Your task to perform on an android device: turn off priority inbox in the gmail app Image 0: 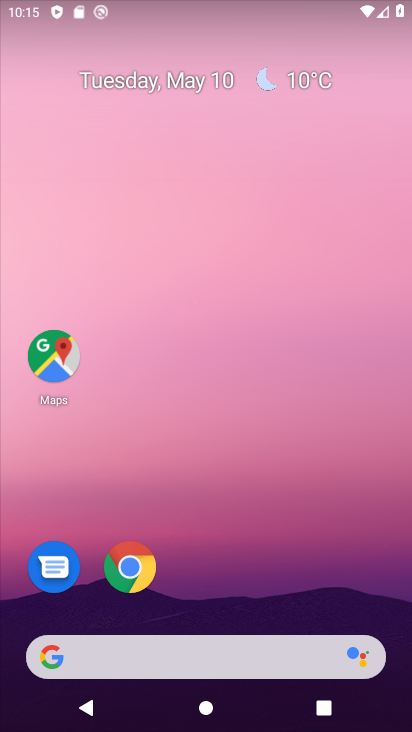
Step 0: drag from (329, 602) to (323, 2)
Your task to perform on an android device: turn off priority inbox in the gmail app Image 1: 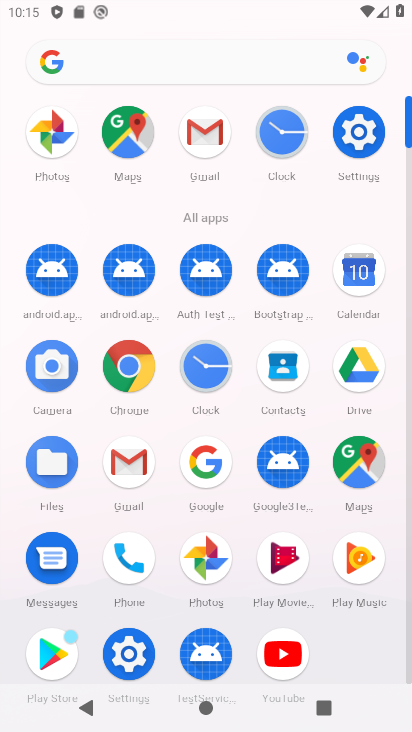
Step 1: click (194, 144)
Your task to perform on an android device: turn off priority inbox in the gmail app Image 2: 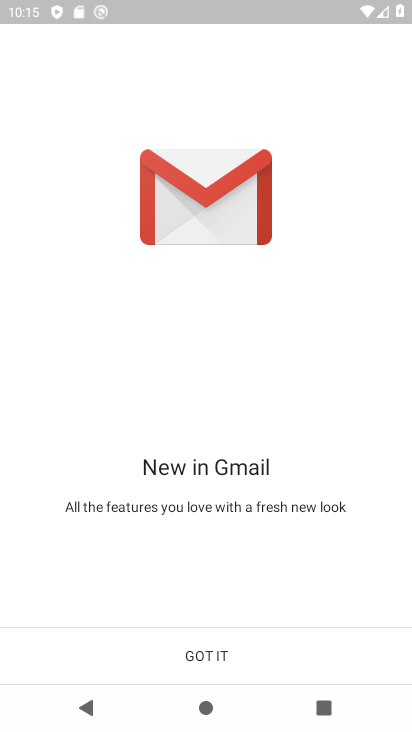
Step 2: click (185, 660)
Your task to perform on an android device: turn off priority inbox in the gmail app Image 3: 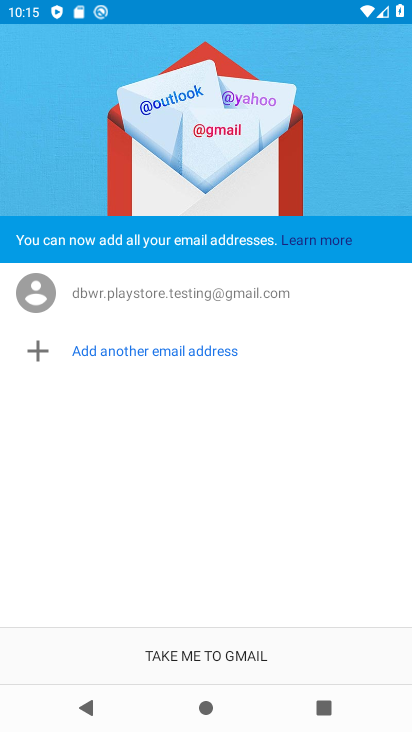
Step 3: click (187, 665)
Your task to perform on an android device: turn off priority inbox in the gmail app Image 4: 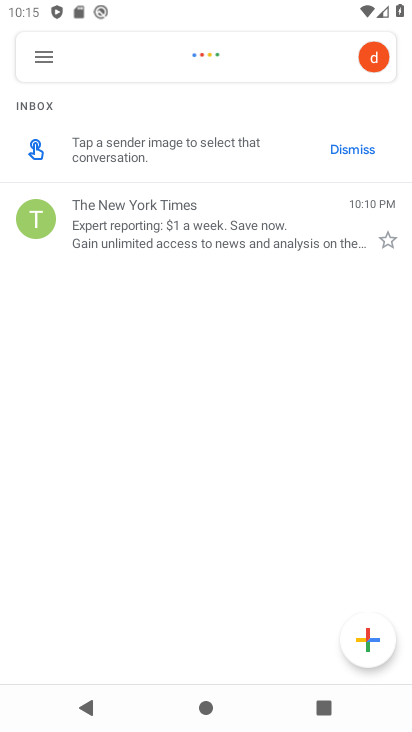
Step 4: click (40, 64)
Your task to perform on an android device: turn off priority inbox in the gmail app Image 5: 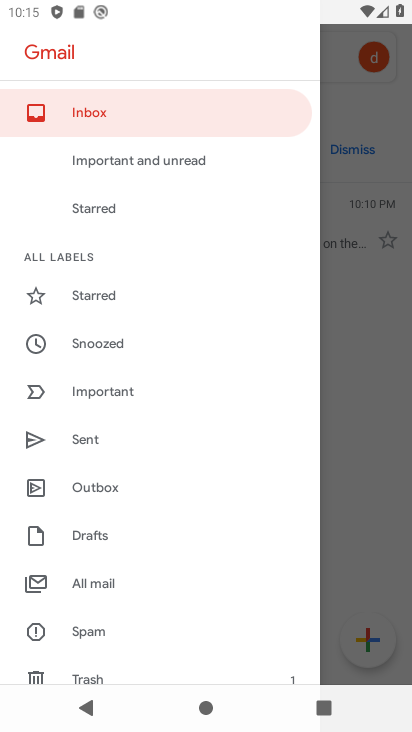
Step 5: drag from (118, 664) to (163, 370)
Your task to perform on an android device: turn off priority inbox in the gmail app Image 6: 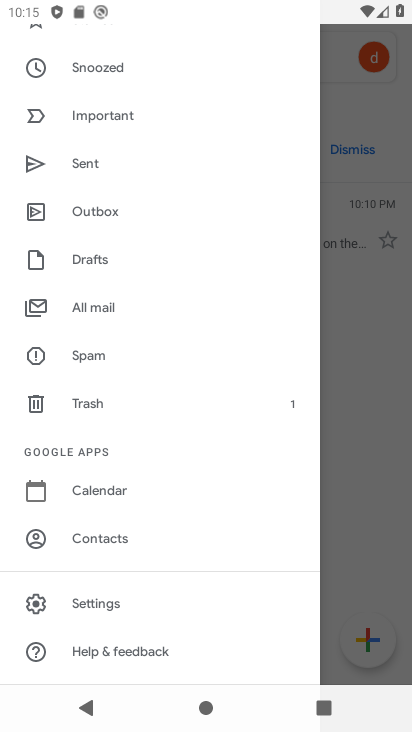
Step 6: click (106, 606)
Your task to perform on an android device: turn off priority inbox in the gmail app Image 7: 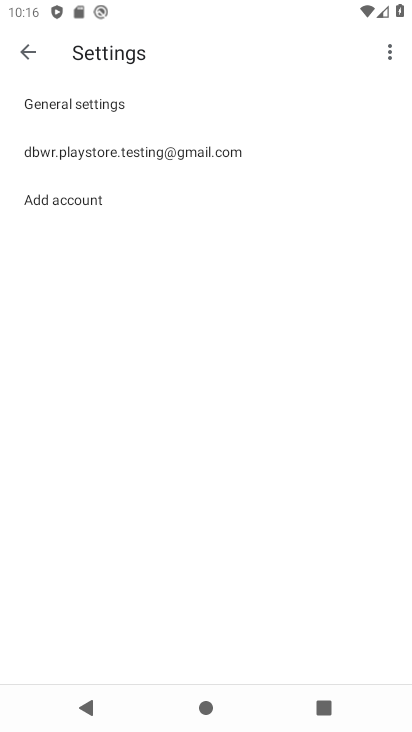
Step 7: click (63, 146)
Your task to perform on an android device: turn off priority inbox in the gmail app Image 8: 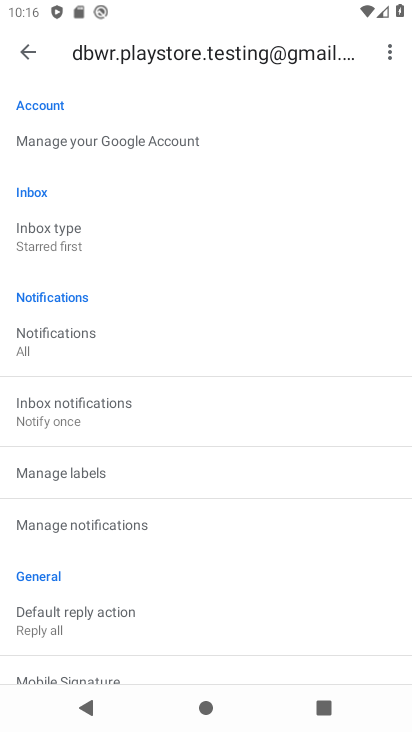
Step 8: click (36, 242)
Your task to perform on an android device: turn off priority inbox in the gmail app Image 9: 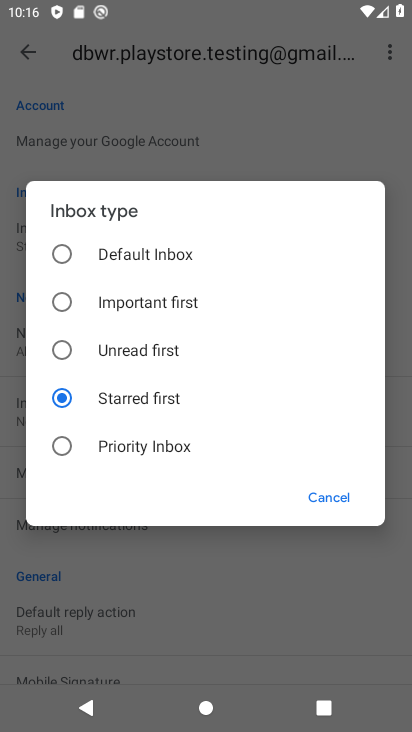
Step 9: task complete